Your task to perform on an android device: Open Google Maps Image 0: 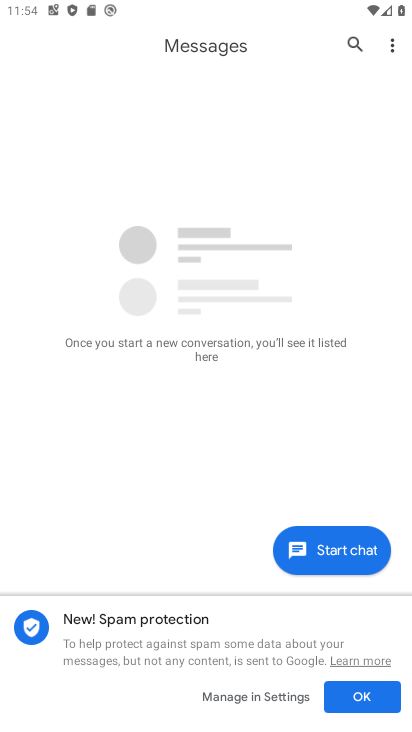
Step 0: press home button
Your task to perform on an android device: Open Google Maps Image 1: 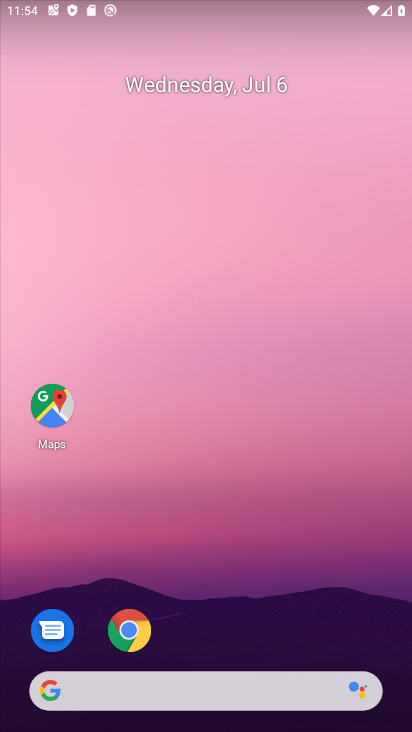
Step 1: drag from (215, 607) to (248, 90)
Your task to perform on an android device: Open Google Maps Image 2: 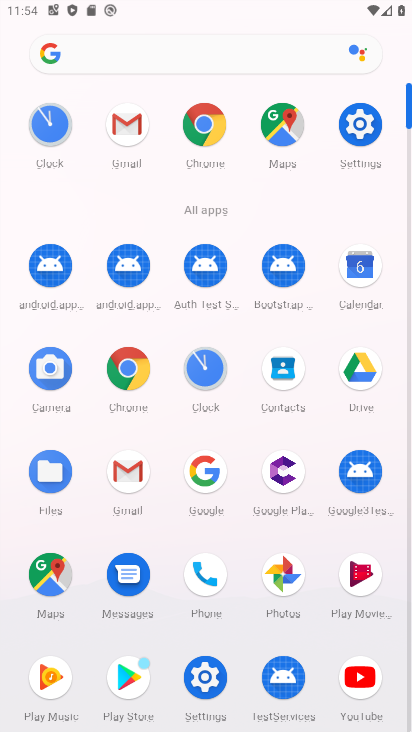
Step 2: click (55, 579)
Your task to perform on an android device: Open Google Maps Image 3: 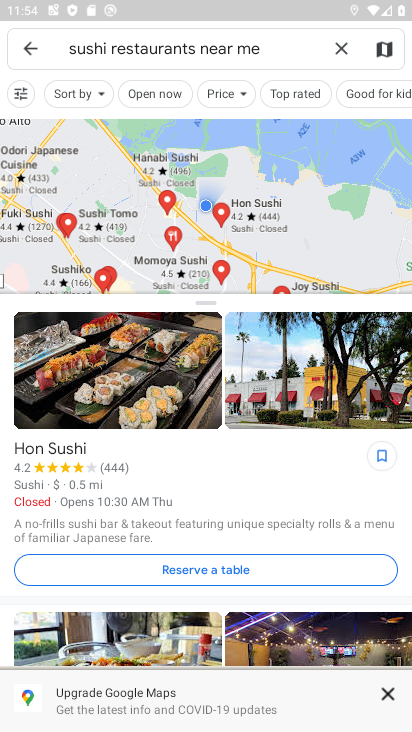
Step 3: task complete